Your task to perform on an android device: check storage Image 0: 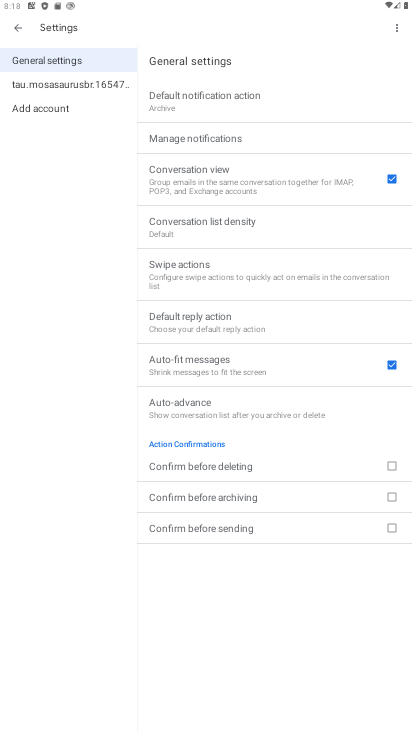
Step 0: press home button
Your task to perform on an android device: check storage Image 1: 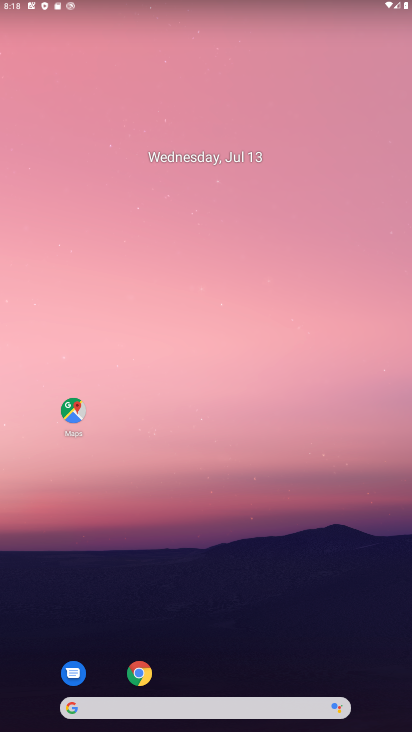
Step 1: drag from (303, 600) to (303, 156)
Your task to perform on an android device: check storage Image 2: 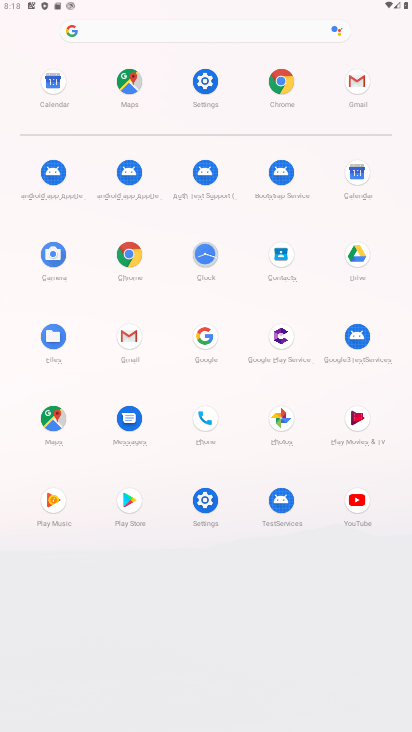
Step 2: click (207, 84)
Your task to perform on an android device: check storage Image 3: 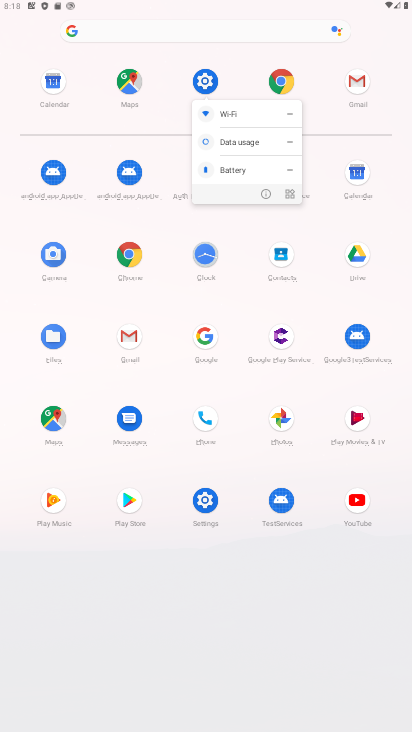
Step 3: click (205, 74)
Your task to perform on an android device: check storage Image 4: 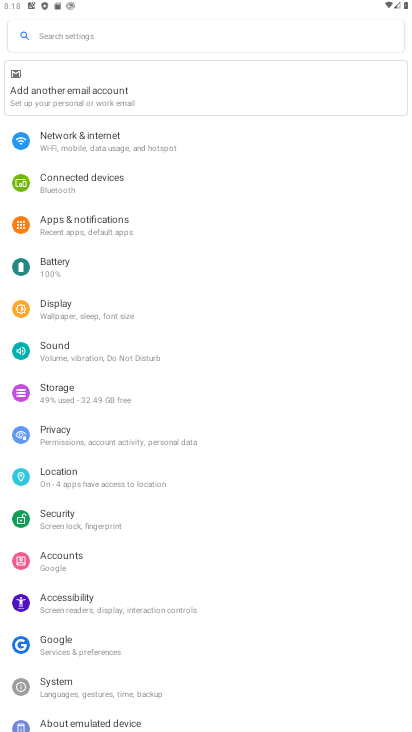
Step 4: click (64, 394)
Your task to perform on an android device: check storage Image 5: 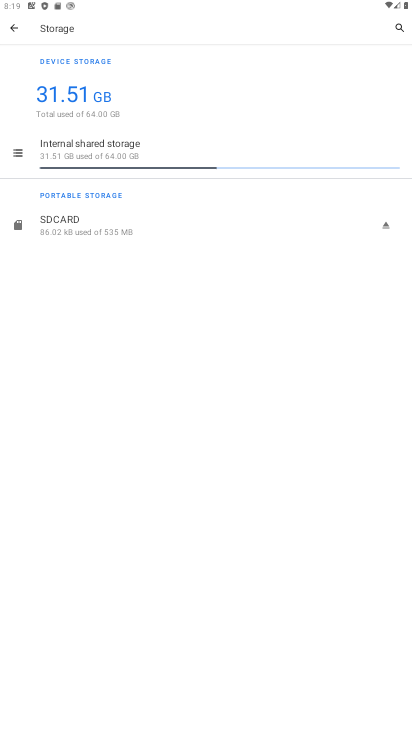
Step 5: task complete